Your task to perform on an android device: Open my contact list Image 0: 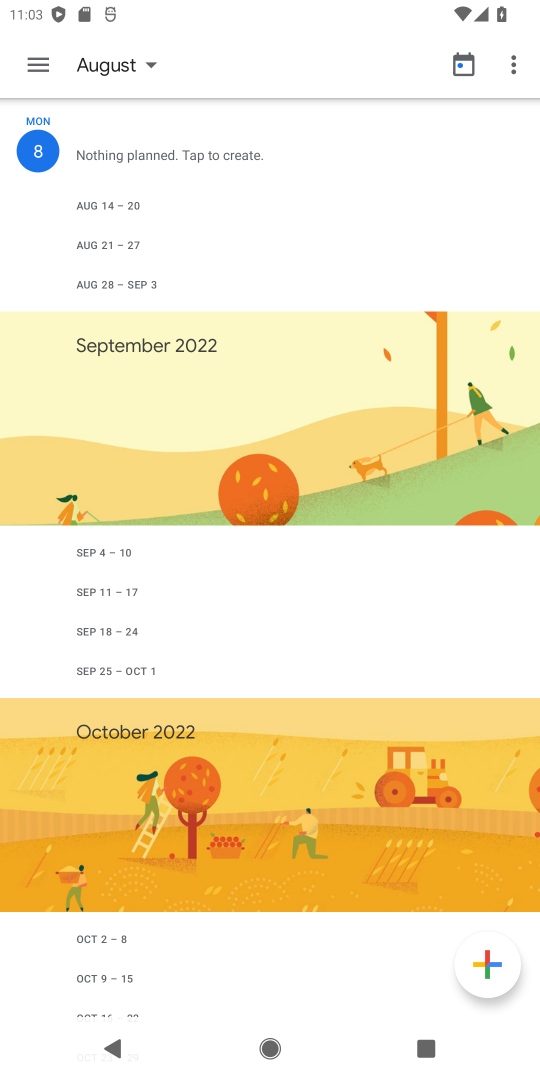
Step 0: press home button
Your task to perform on an android device: Open my contact list Image 1: 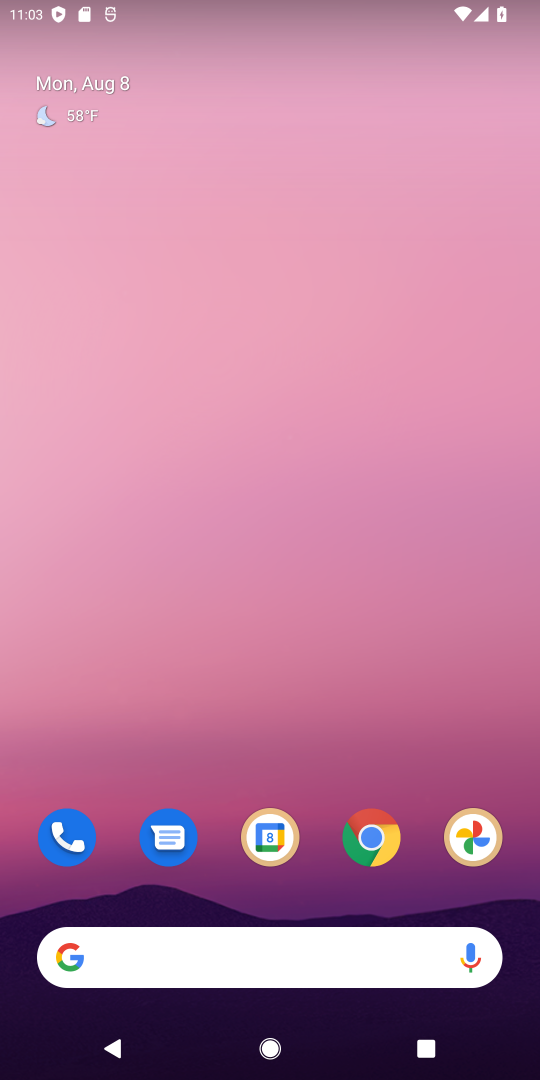
Step 1: drag from (448, 741) to (324, 139)
Your task to perform on an android device: Open my contact list Image 2: 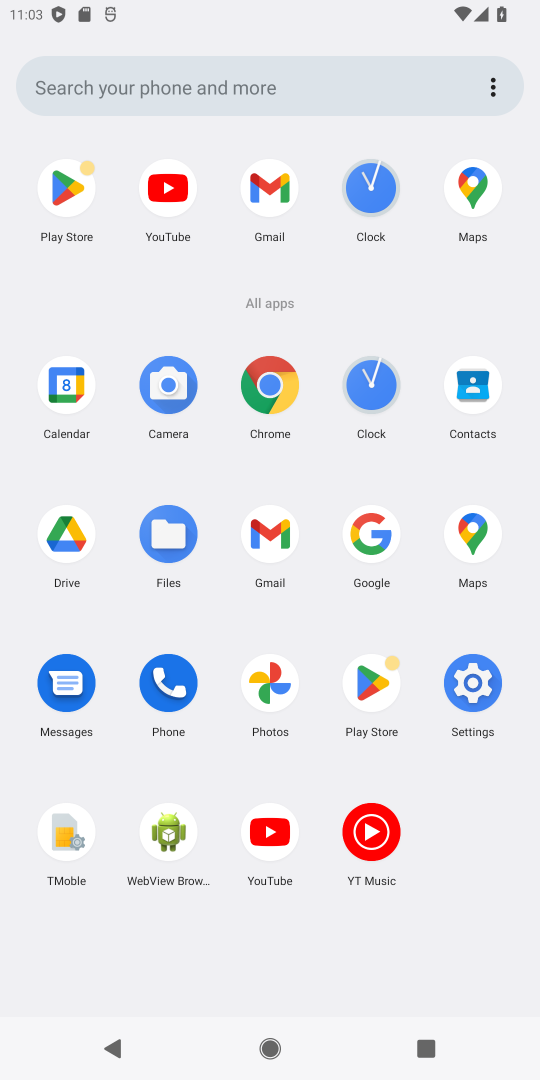
Step 2: click (475, 385)
Your task to perform on an android device: Open my contact list Image 3: 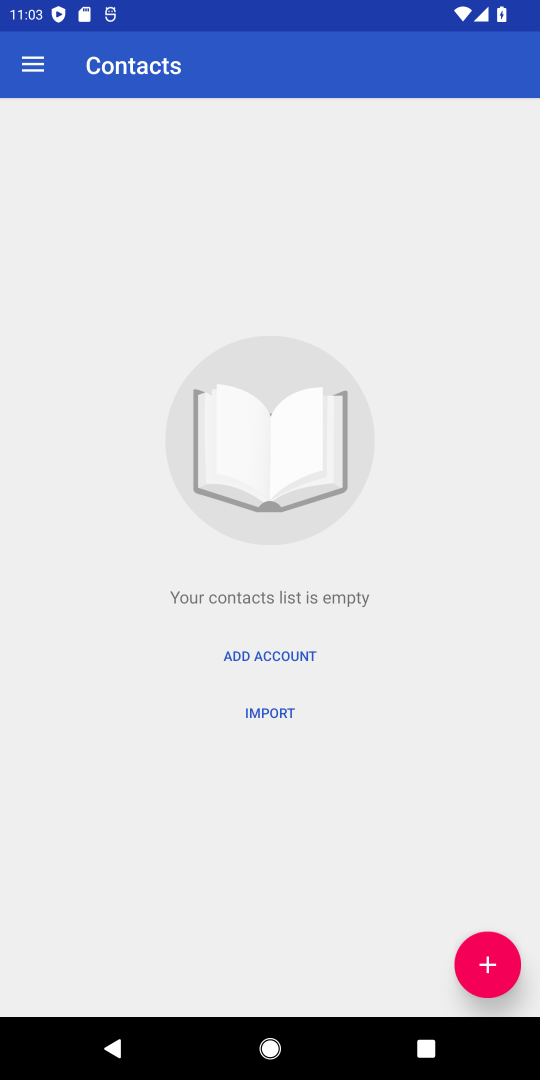
Step 3: click (491, 948)
Your task to perform on an android device: Open my contact list Image 4: 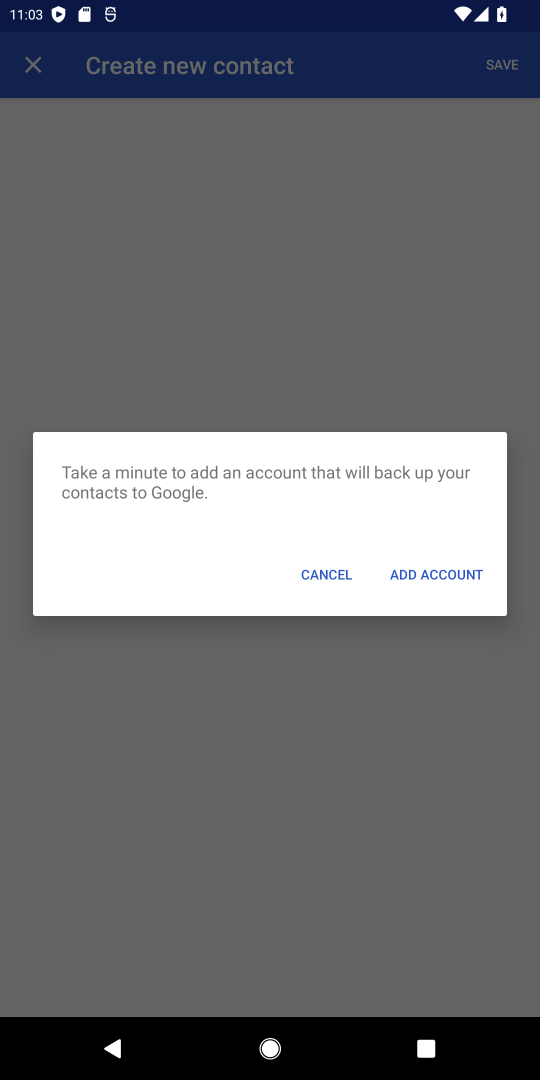
Step 4: click (329, 564)
Your task to perform on an android device: Open my contact list Image 5: 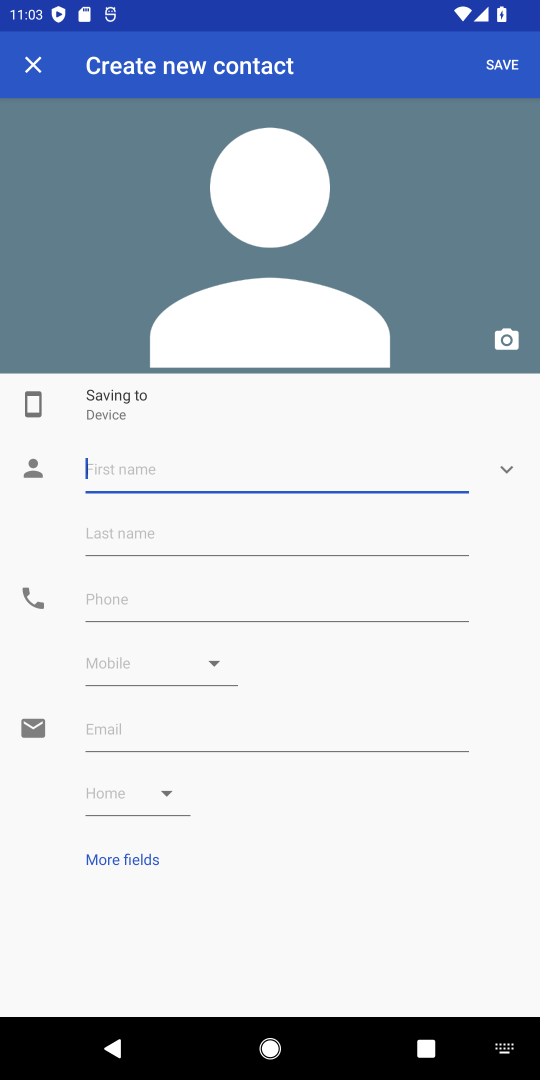
Step 5: type "hgvyvhvhgfvn"
Your task to perform on an android device: Open my contact list Image 6: 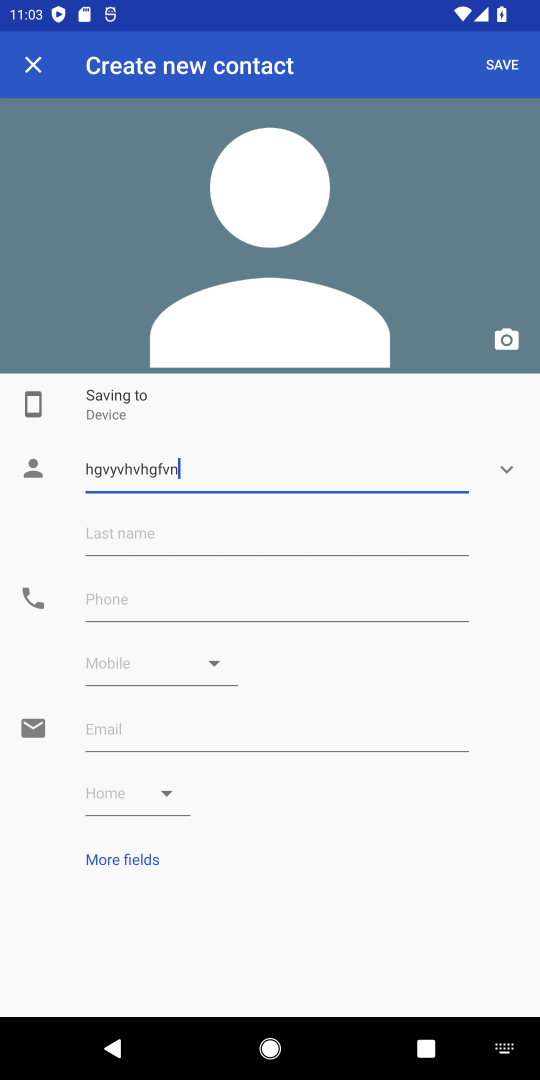
Step 6: click (122, 537)
Your task to perform on an android device: Open my contact list Image 7: 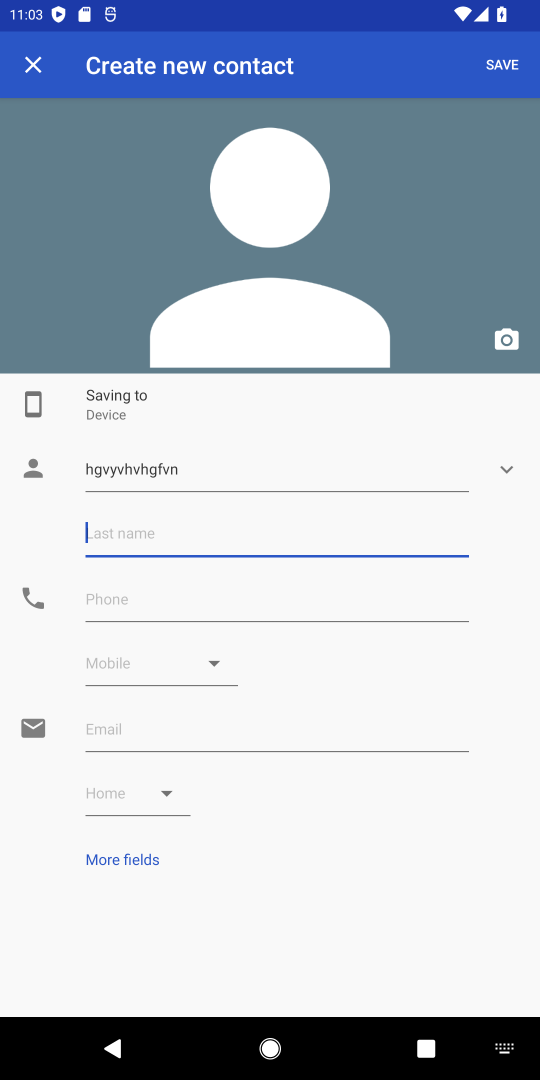
Step 7: type "ffffcgfv ggh"
Your task to perform on an android device: Open my contact list Image 8: 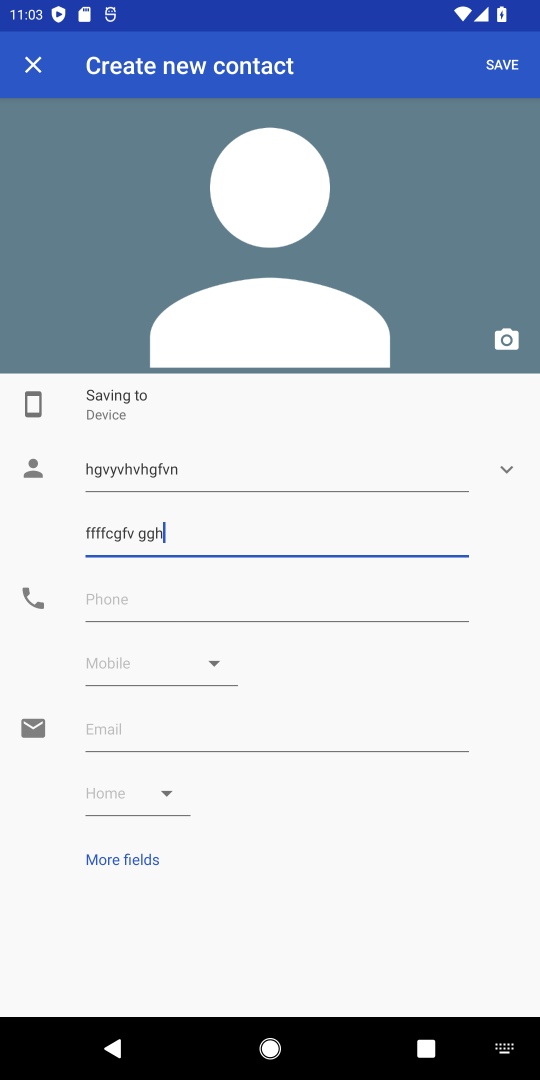
Step 8: click (230, 594)
Your task to perform on an android device: Open my contact list Image 9: 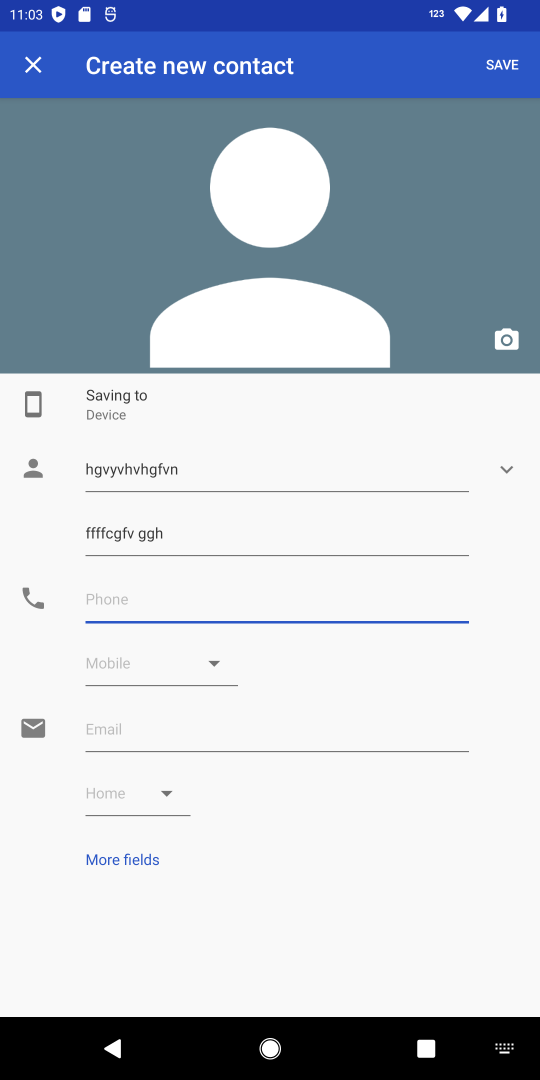
Step 9: type "cgcfgcfdxgcd"
Your task to perform on an android device: Open my contact list Image 10: 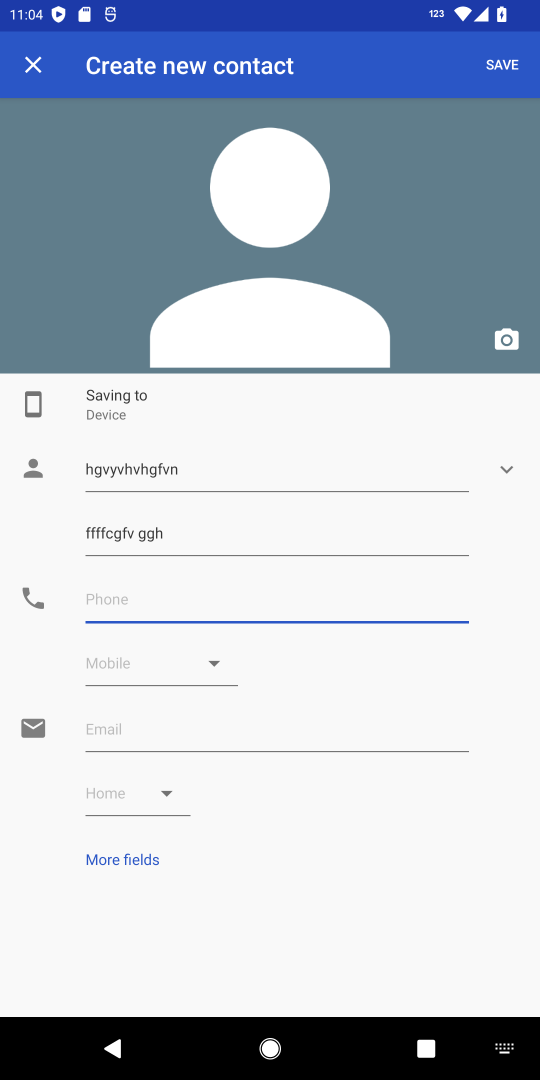
Step 10: type "45465465443546"
Your task to perform on an android device: Open my contact list Image 11: 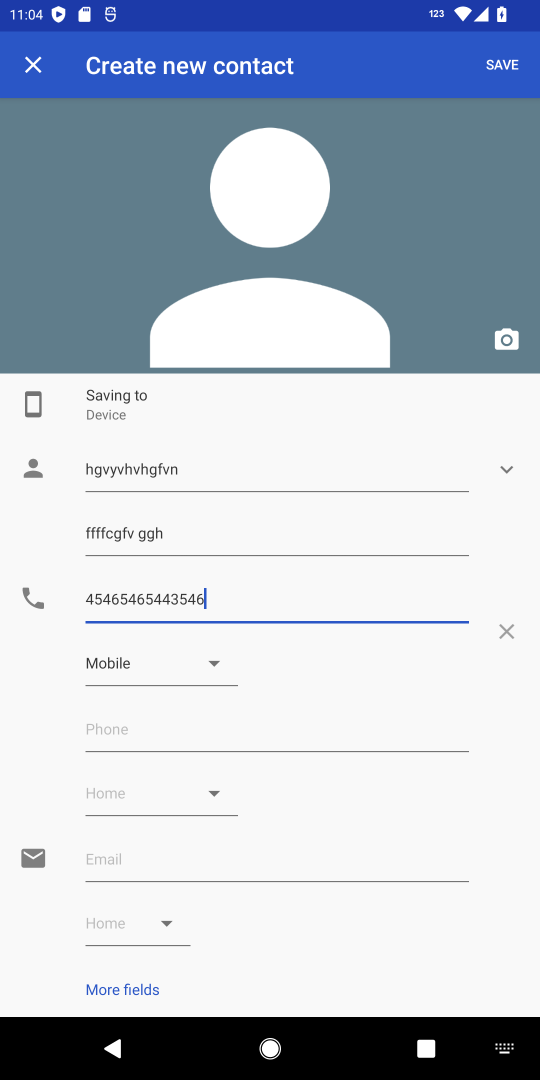
Step 11: click (518, 69)
Your task to perform on an android device: Open my contact list Image 12: 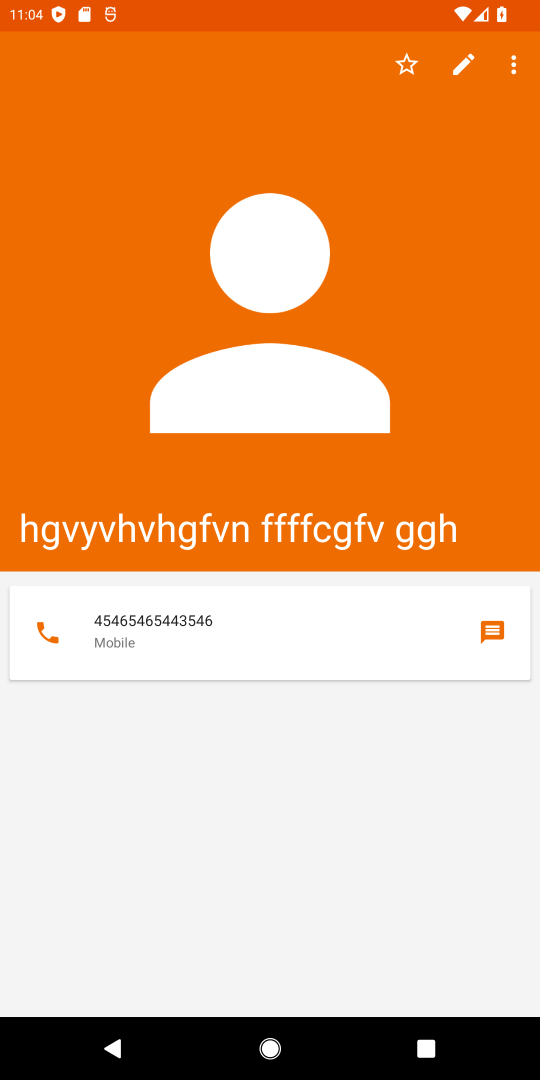
Step 12: task complete